Your task to perform on an android device: Is it going to rain tomorrow? Image 0: 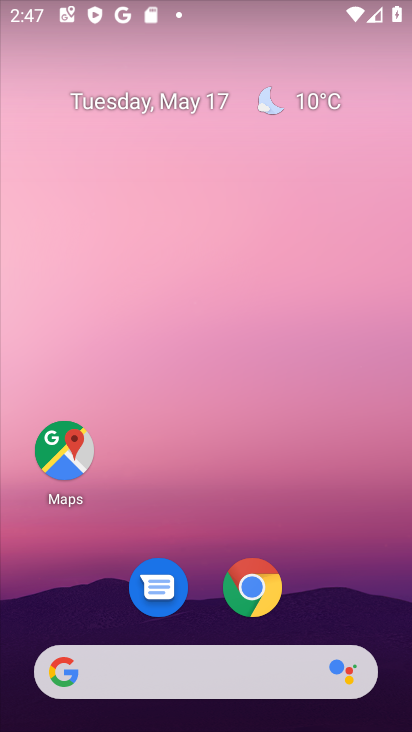
Step 0: drag from (291, 592) to (235, 19)
Your task to perform on an android device: Is it going to rain tomorrow? Image 1: 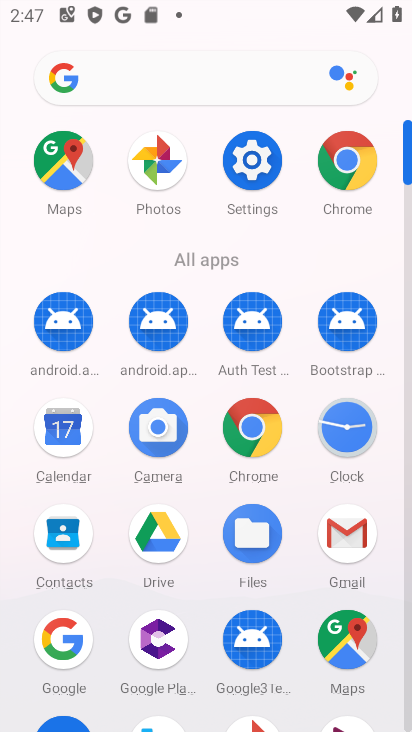
Step 1: drag from (4, 545) to (19, 241)
Your task to perform on an android device: Is it going to rain tomorrow? Image 2: 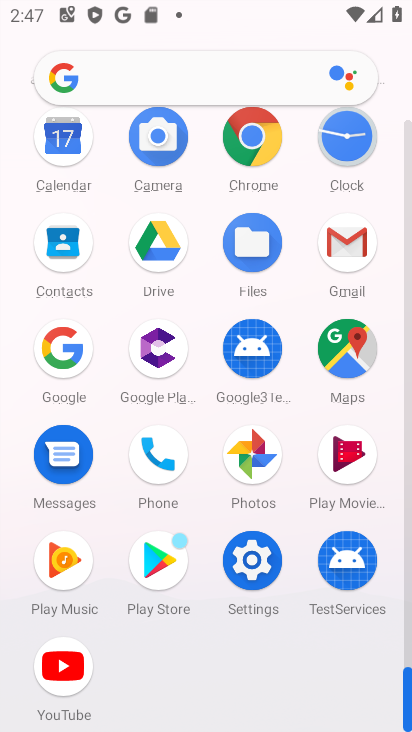
Step 2: click (247, 135)
Your task to perform on an android device: Is it going to rain tomorrow? Image 3: 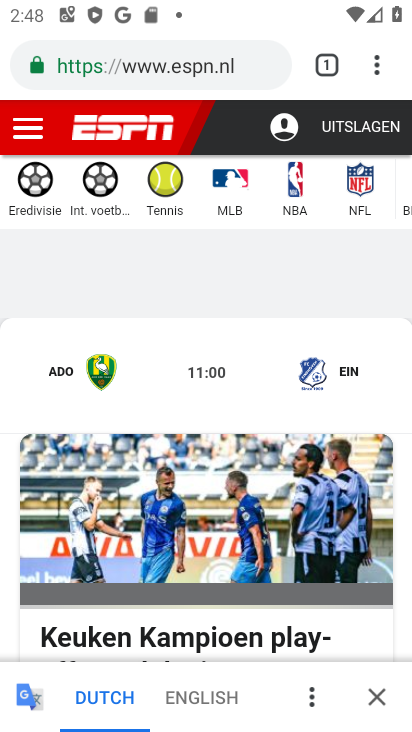
Step 3: click (145, 61)
Your task to perform on an android device: Is it going to rain tomorrow? Image 4: 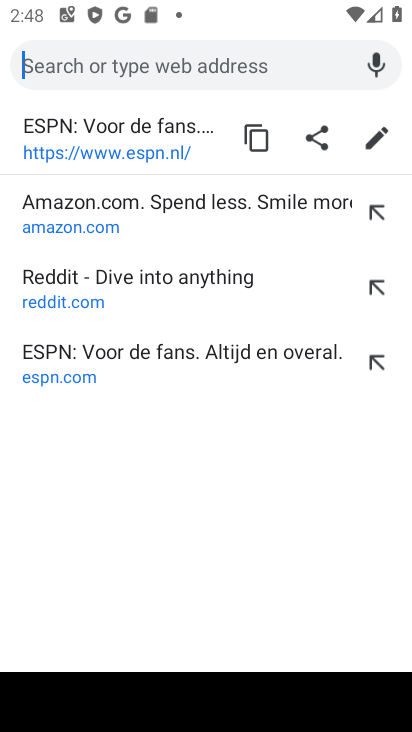
Step 4: type "Is it going to rain tomorrow?"
Your task to perform on an android device: Is it going to rain tomorrow? Image 5: 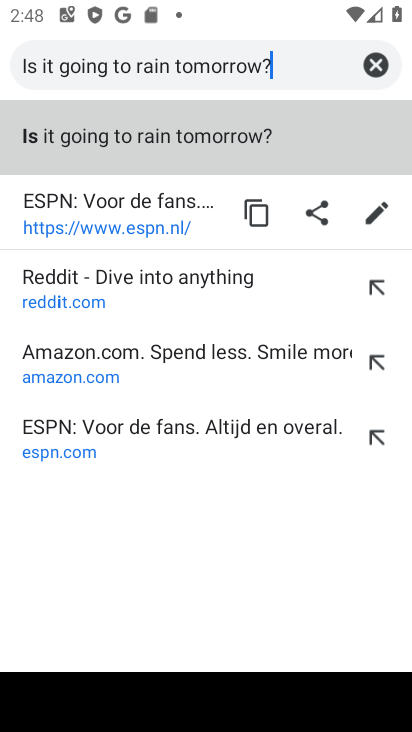
Step 5: type ""
Your task to perform on an android device: Is it going to rain tomorrow? Image 6: 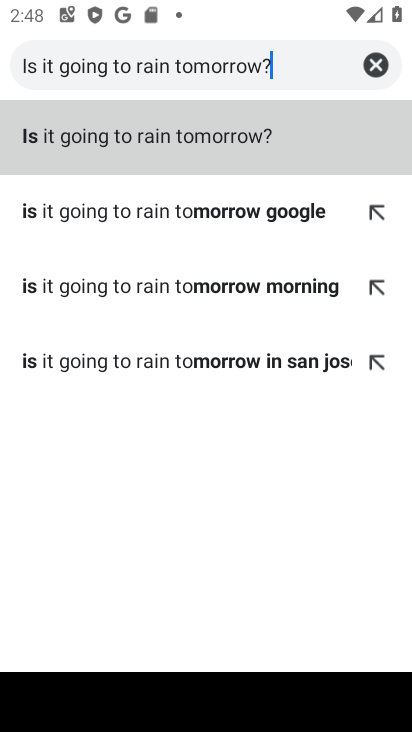
Step 6: click (140, 115)
Your task to perform on an android device: Is it going to rain tomorrow? Image 7: 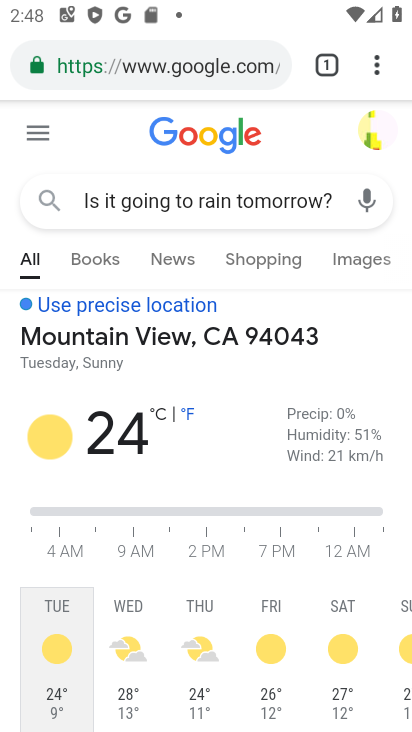
Step 7: task complete